Your task to perform on an android device: Open privacy settings Image 0: 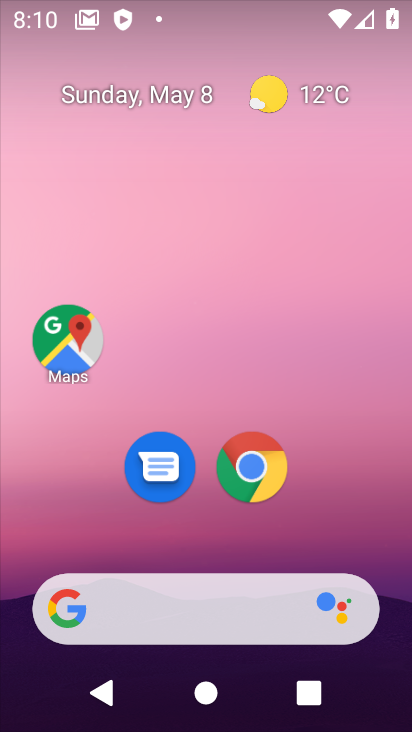
Step 0: drag from (217, 556) to (342, 52)
Your task to perform on an android device: Open privacy settings Image 1: 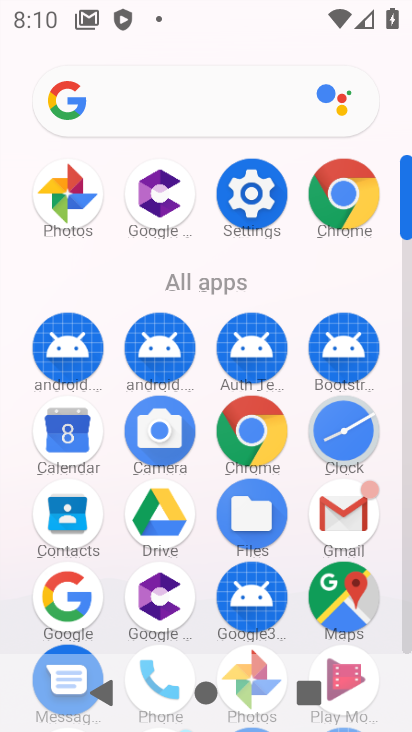
Step 1: click (265, 176)
Your task to perform on an android device: Open privacy settings Image 2: 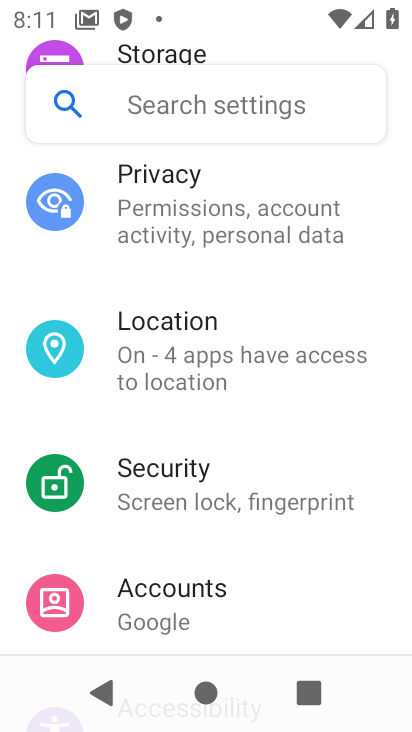
Step 2: click (228, 218)
Your task to perform on an android device: Open privacy settings Image 3: 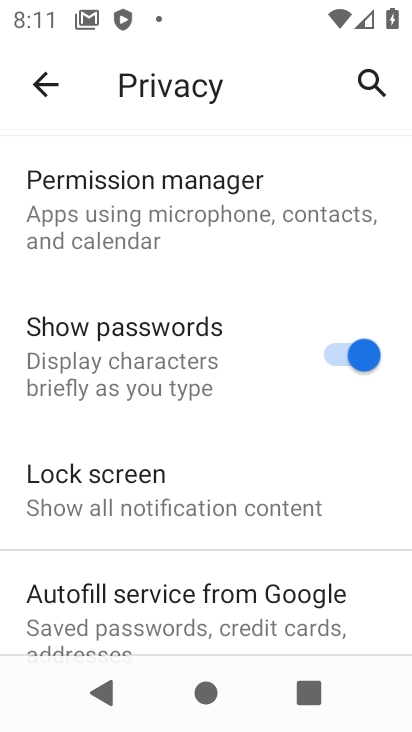
Step 3: task complete